Your task to perform on an android device: Go to Reddit.com Image 0: 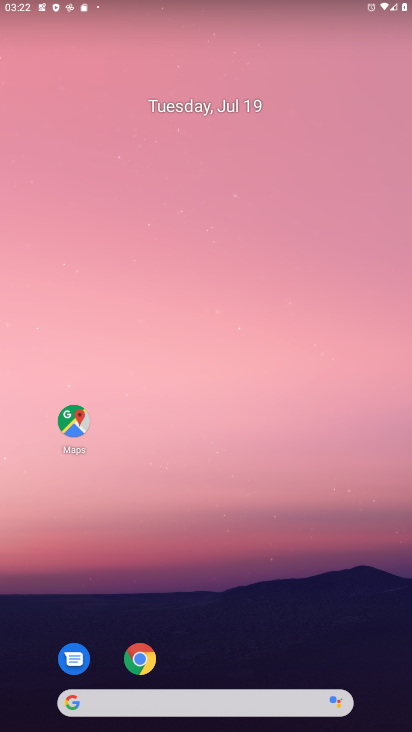
Step 0: click (138, 659)
Your task to perform on an android device: Go to Reddit.com Image 1: 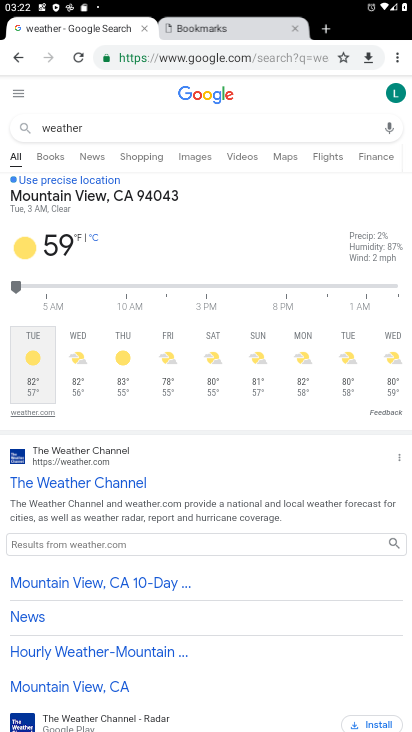
Step 1: click (224, 59)
Your task to perform on an android device: Go to Reddit.com Image 2: 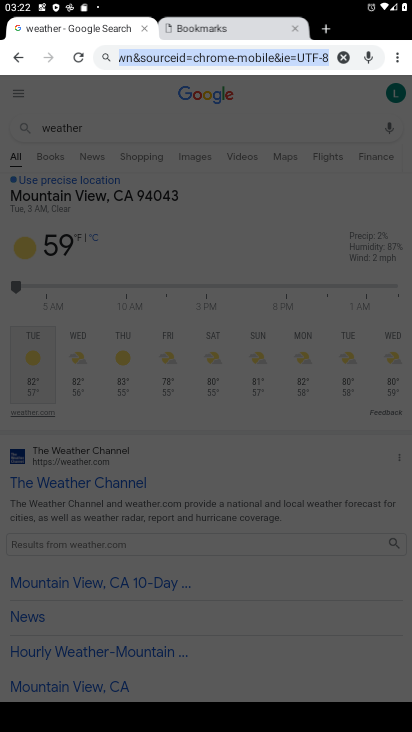
Step 2: type "Reddit.com"
Your task to perform on an android device: Go to Reddit.com Image 3: 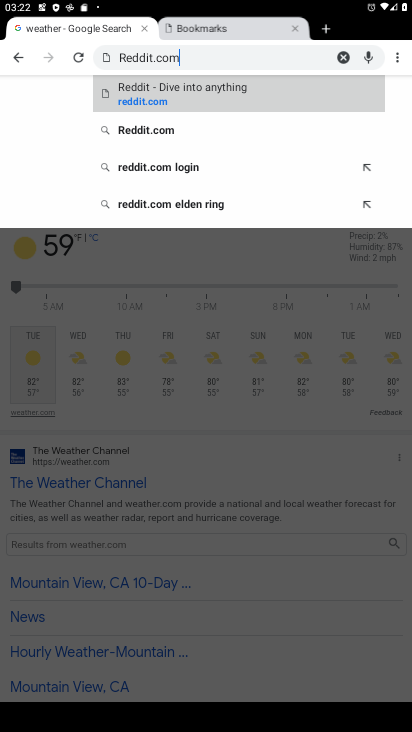
Step 3: click (131, 82)
Your task to perform on an android device: Go to Reddit.com Image 4: 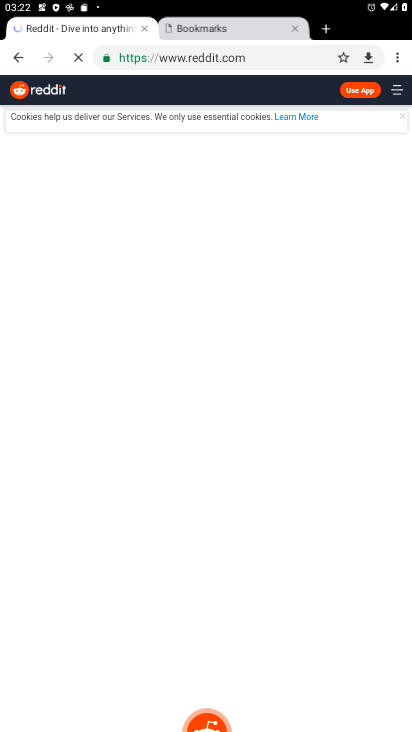
Step 4: task complete